Your task to perform on an android device: turn off notifications settings in the gmail app Image 0: 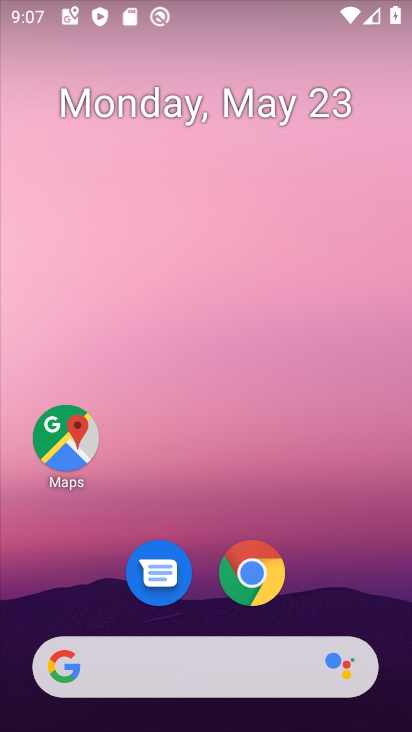
Step 0: drag from (390, 619) to (370, 223)
Your task to perform on an android device: turn off notifications settings in the gmail app Image 1: 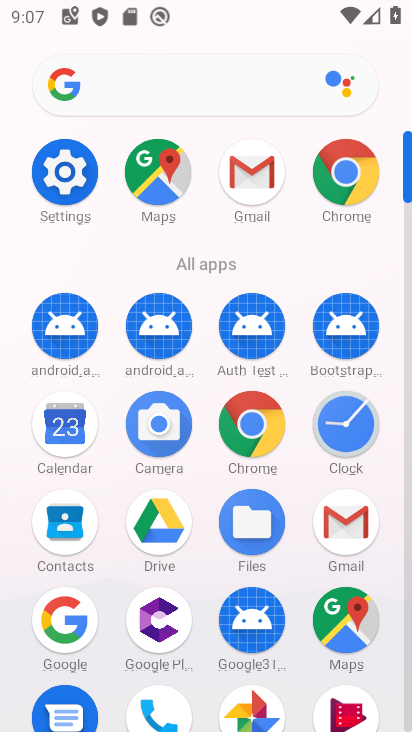
Step 1: click (364, 529)
Your task to perform on an android device: turn off notifications settings in the gmail app Image 2: 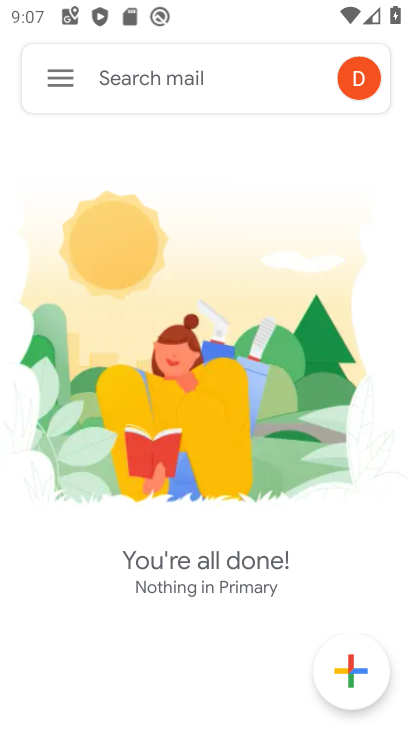
Step 2: click (67, 81)
Your task to perform on an android device: turn off notifications settings in the gmail app Image 3: 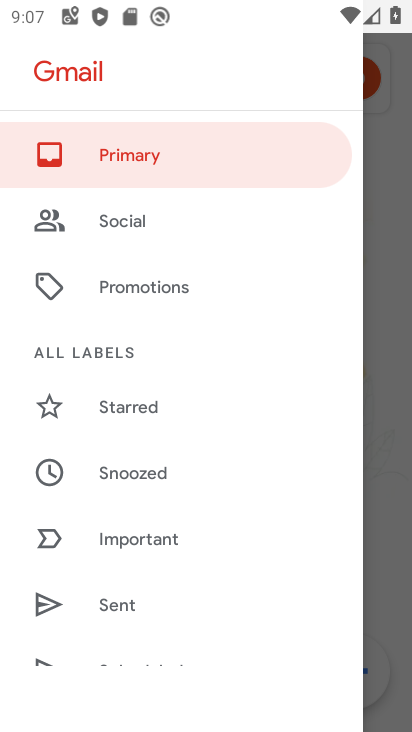
Step 3: drag from (271, 452) to (259, 344)
Your task to perform on an android device: turn off notifications settings in the gmail app Image 4: 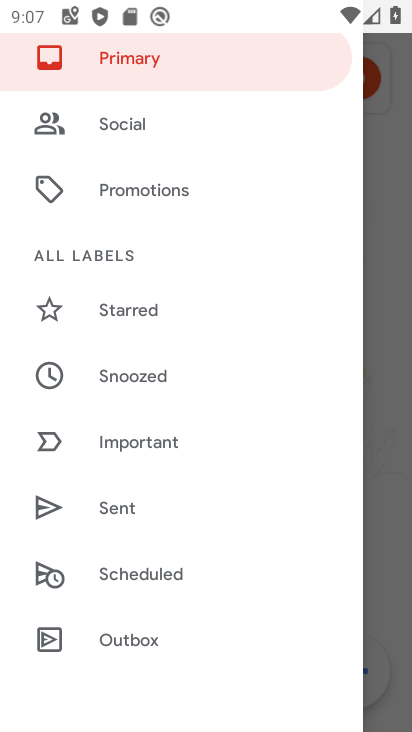
Step 4: drag from (287, 473) to (286, 389)
Your task to perform on an android device: turn off notifications settings in the gmail app Image 5: 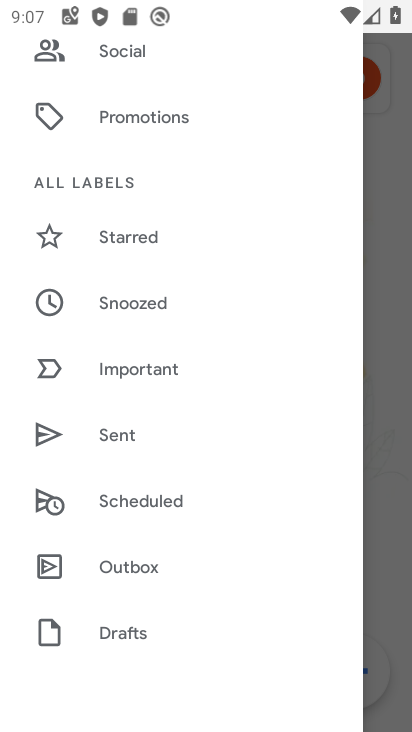
Step 5: drag from (293, 487) to (289, 376)
Your task to perform on an android device: turn off notifications settings in the gmail app Image 6: 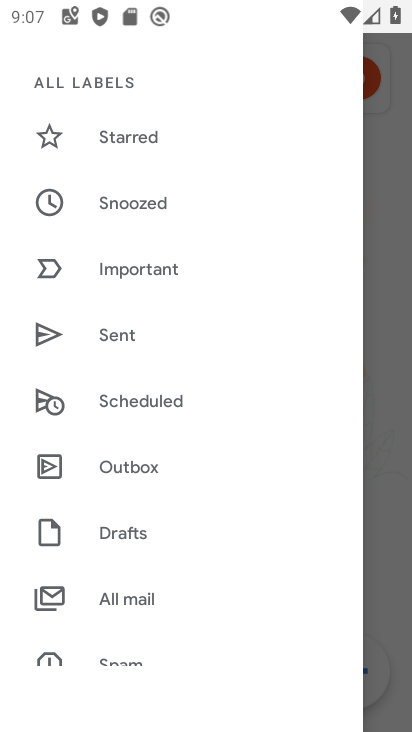
Step 6: drag from (269, 525) to (278, 418)
Your task to perform on an android device: turn off notifications settings in the gmail app Image 7: 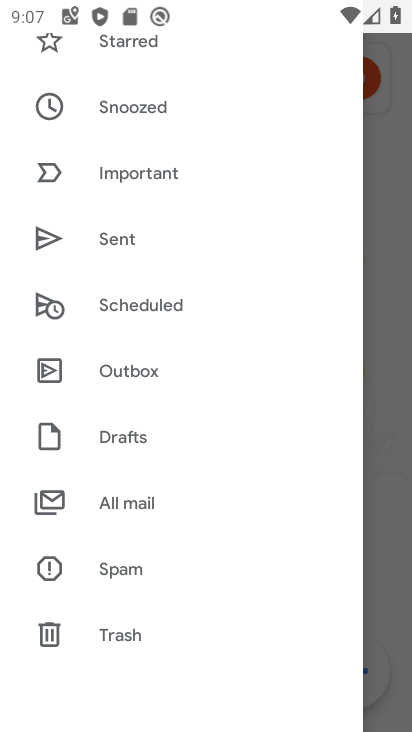
Step 7: drag from (264, 547) to (271, 470)
Your task to perform on an android device: turn off notifications settings in the gmail app Image 8: 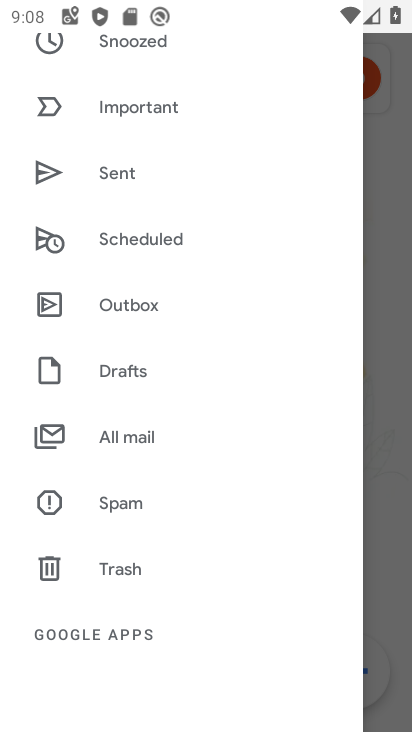
Step 8: drag from (272, 546) to (282, 424)
Your task to perform on an android device: turn off notifications settings in the gmail app Image 9: 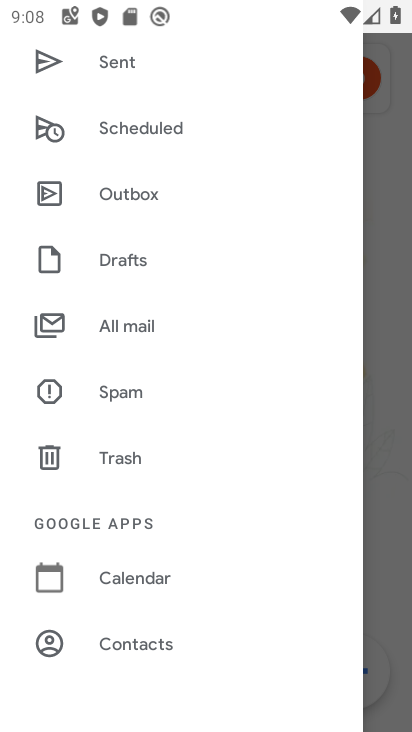
Step 9: drag from (288, 574) to (272, 454)
Your task to perform on an android device: turn off notifications settings in the gmail app Image 10: 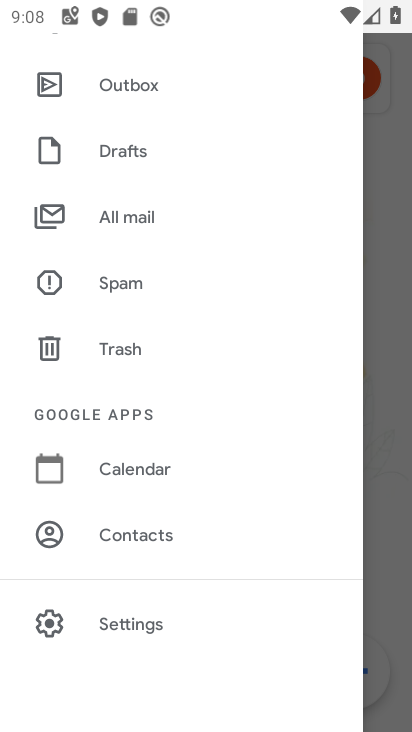
Step 10: click (253, 628)
Your task to perform on an android device: turn off notifications settings in the gmail app Image 11: 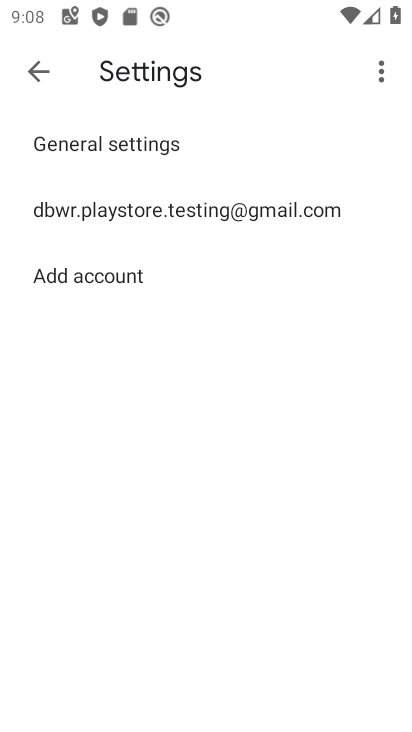
Step 11: click (347, 218)
Your task to perform on an android device: turn off notifications settings in the gmail app Image 12: 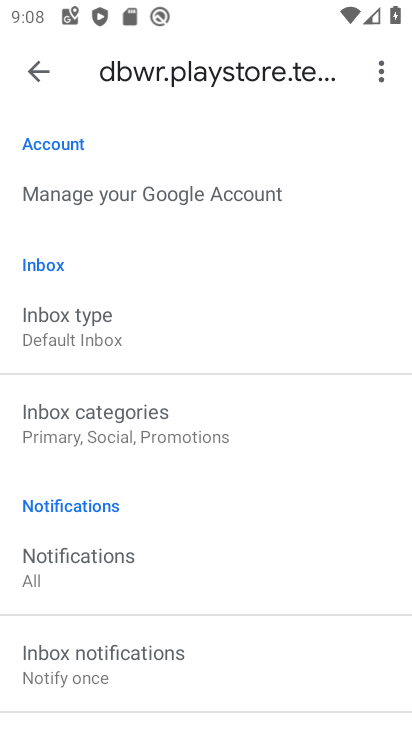
Step 12: drag from (311, 417) to (318, 333)
Your task to perform on an android device: turn off notifications settings in the gmail app Image 13: 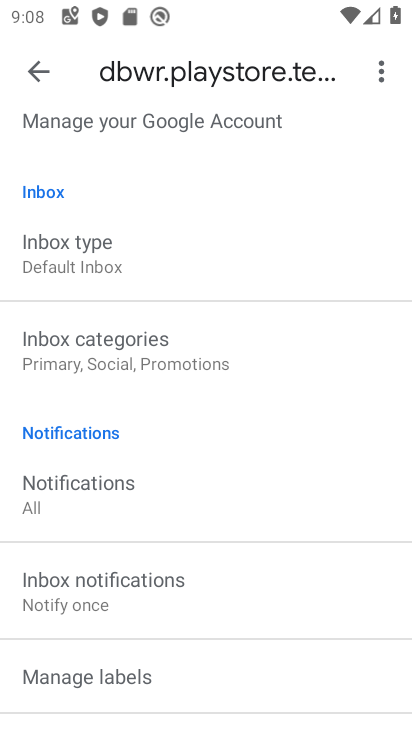
Step 13: drag from (315, 498) to (318, 406)
Your task to perform on an android device: turn off notifications settings in the gmail app Image 14: 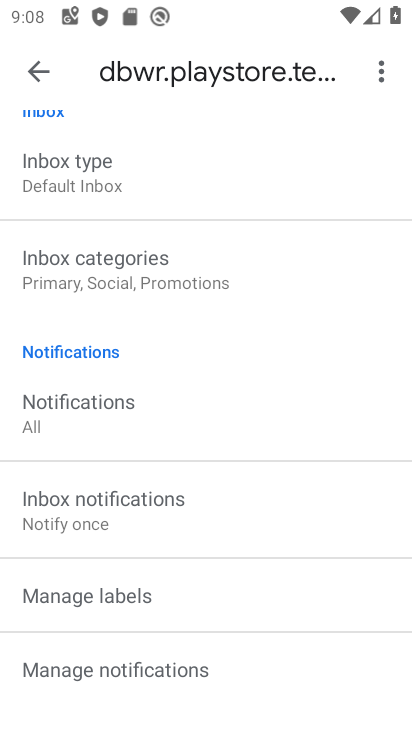
Step 14: drag from (340, 619) to (351, 510)
Your task to perform on an android device: turn off notifications settings in the gmail app Image 15: 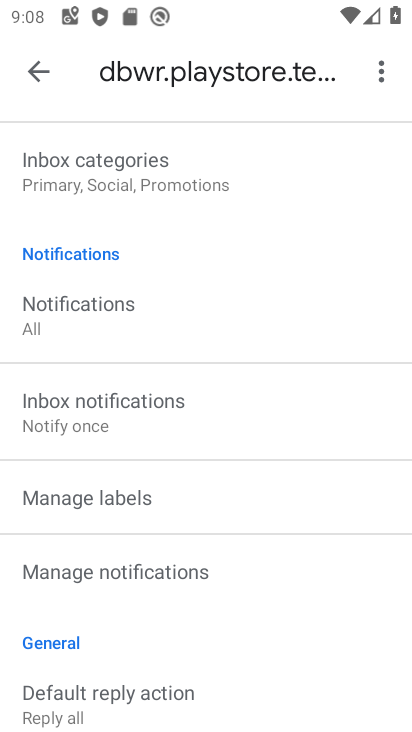
Step 15: drag from (328, 630) to (351, 514)
Your task to perform on an android device: turn off notifications settings in the gmail app Image 16: 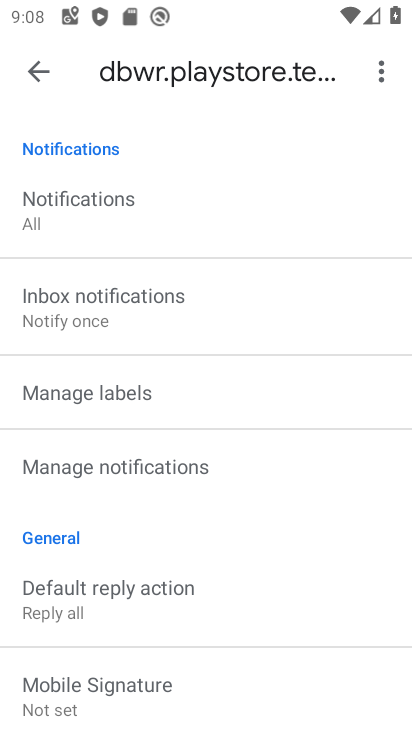
Step 16: drag from (341, 641) to (343, 547)
Your task to perform on an android device: turn off notifications settings in the gmail app Image 17: 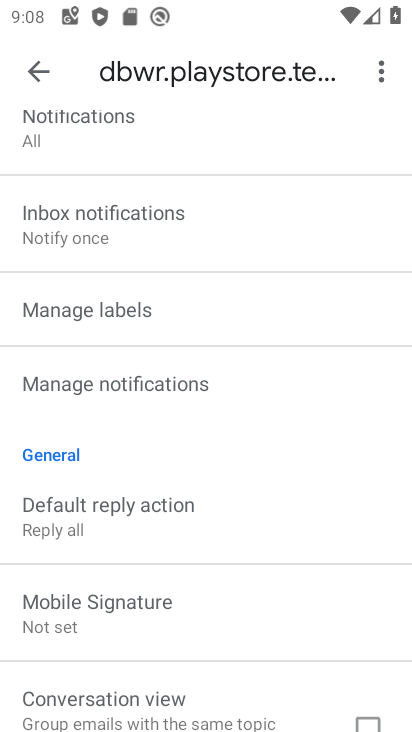
Step 17: drag from (337, 668) to (331, 562)
Your task to perform on an android device: turn off notifications settings in the gmail app Image 18: 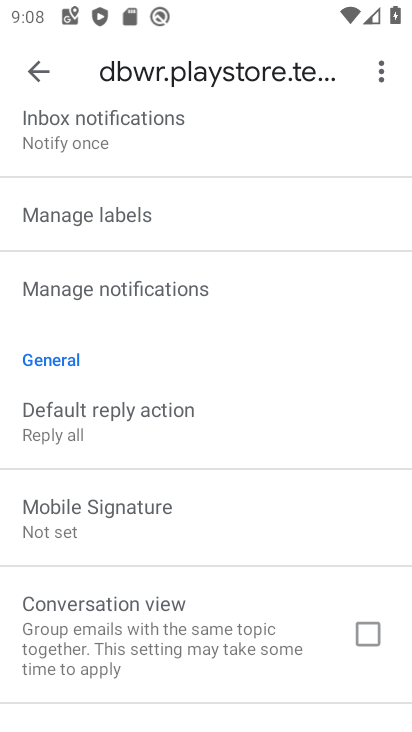
Step 18: drag from (308, 679) to (313, 573)
Your task to perform on an android device: turn off notifications settings in the gmail app Image 19: 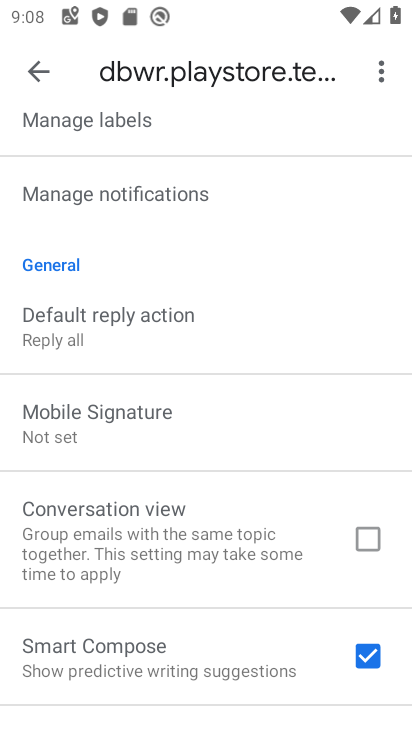
Step 19: drag from (318, 683) to (323, 591)
Your task to perform on an android device: turn off notifications settings in the gmail app Image 20: 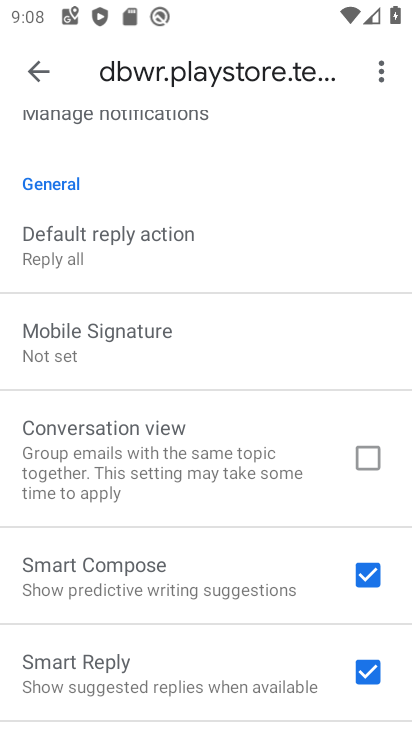
Step 20: drag from (278, 316) to (272, 438)
Your task to perform on an android device: turn off notifications settings in the gmail app Image 21: 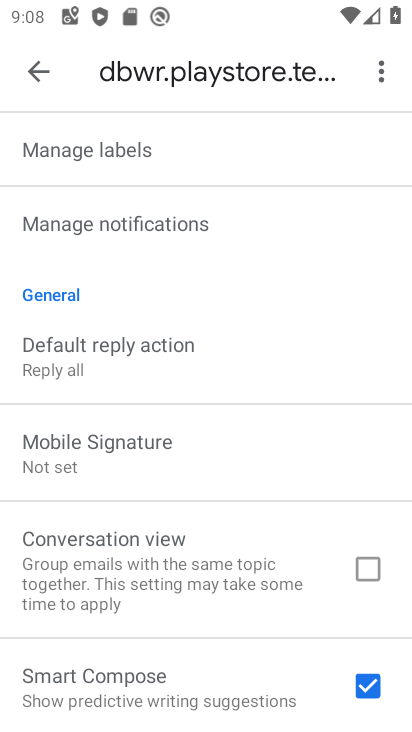
Step 21: drag from (285, 299) to (298, 405)
Your task to perform on an android device: turn off notifications settings in the gmail app Image 22: 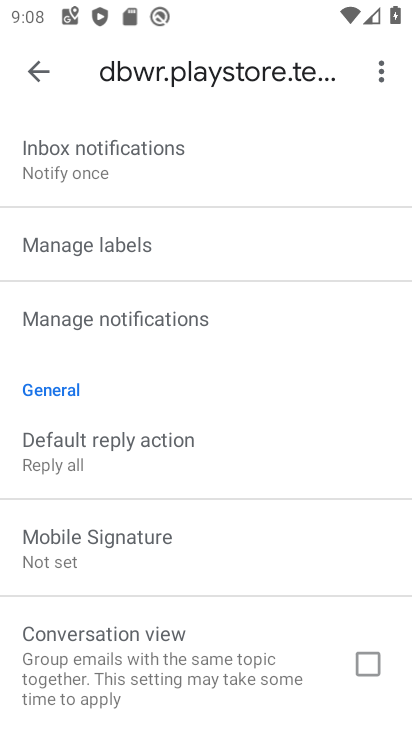
Step 22: click (209, 333)
Your task to perform on an android device: turn off notifications settings in the gmail app Image 23: 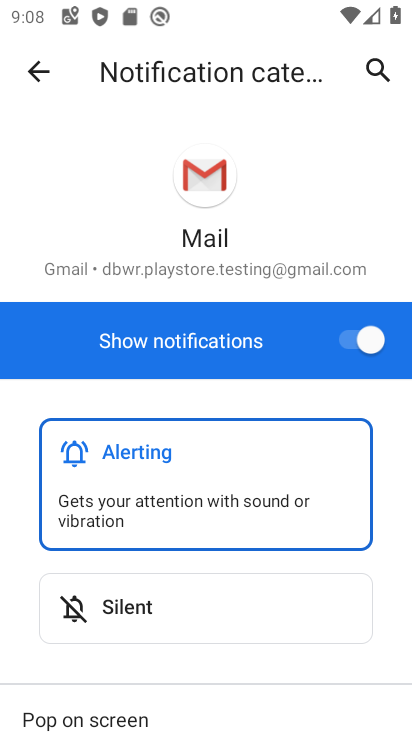
Step 23: click (377, 339)
Your task to perform on an android device: turn off notifications settings in the gmail app Image 24: 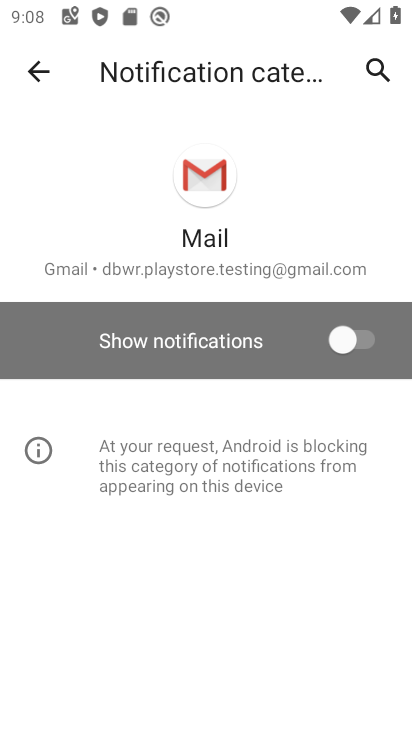
Step 24: task complete